Your task to perform on an android device: Check the weather Image 0: 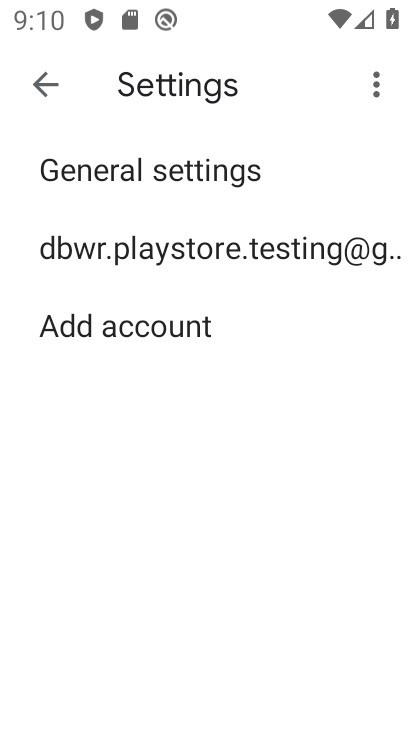
Step 0: press home button
Your task to perform on an android device: Check the weather Image 1: 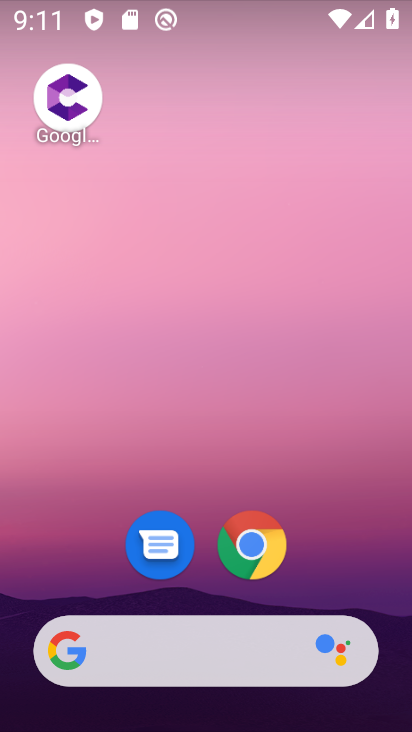
Step 1: click (185, 633)
Your task to perform on an android device: Check the weather Image 2: 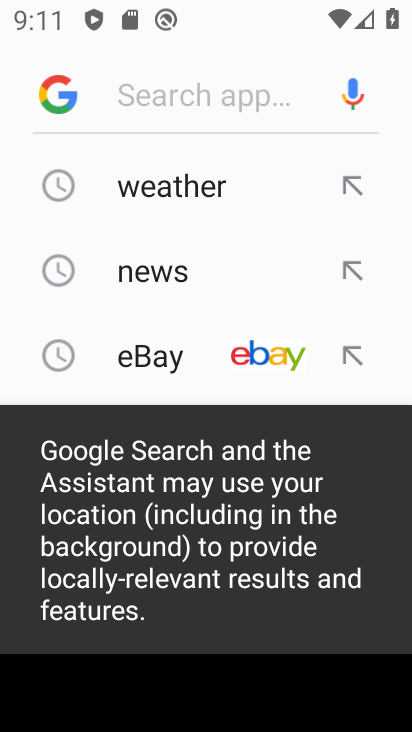
Step 2: click (177, 196)
Your task to perform on an android device: Check the weather Image 3: 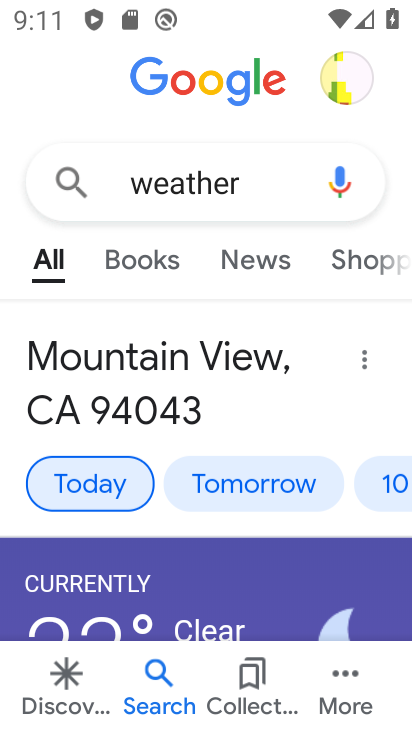
Step 3: task complete